Your task to perform on an android device: turn off notifications settings in the gmail app Image 0: 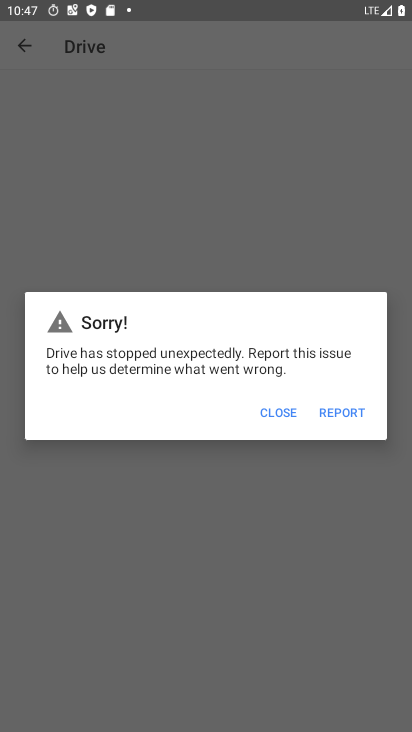
Step 0: press home button
Your task to perform on an android device: turn off notifications settings in the gmail app Image 1: 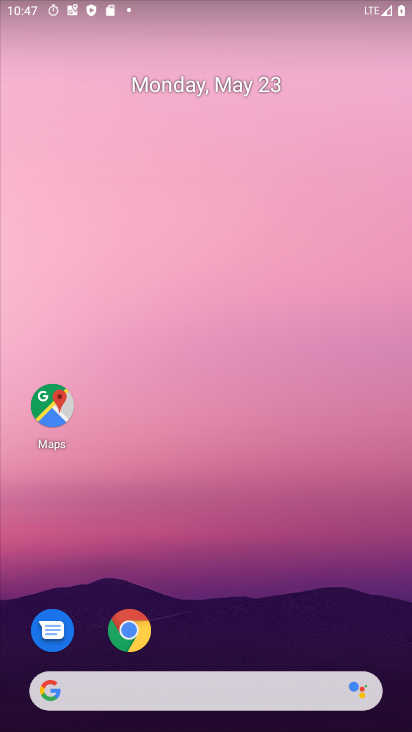
Step 1: drag from (291, 657) to (370, 2)
Your task to perform on an android device: turn off notifications settings in the gmail app Image 2: 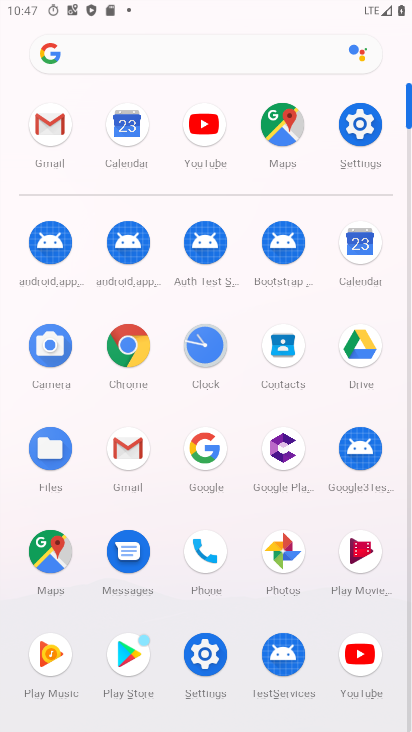
Step 2: click (41, 130)
Your task to perform on an android device: turn off notifications settings in the gmail app Image 3: 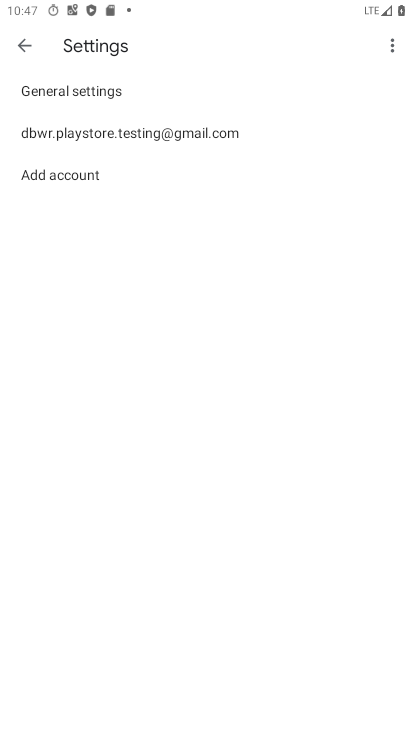
Step 3: click (31, 89)
Your task to perform on an android device: turn off notifications settings in the gmail app Image 4: 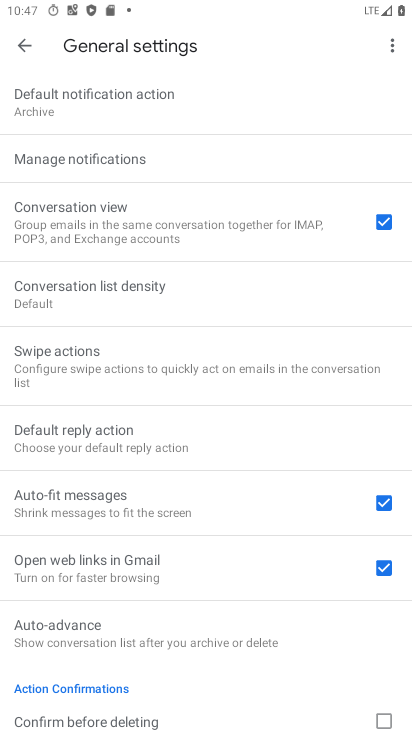
Step 4: click (59, 166)
Your task to perform on an android device: turn off notifications settings in the gmail app Image 5: 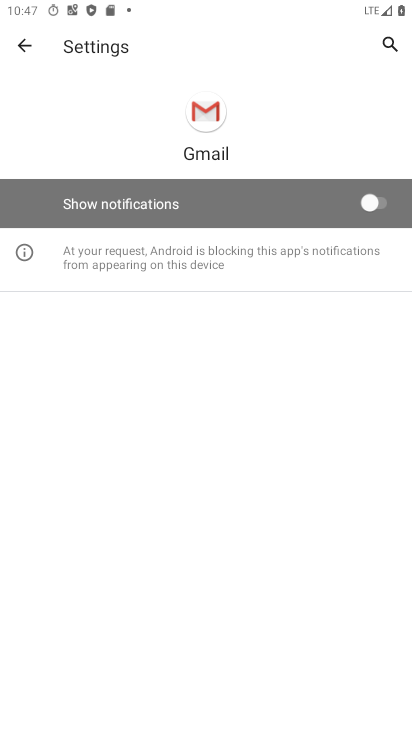
Step 5: task complete